Your task to perform on an android device: Show me productivity apps on the Play Store Image 0: 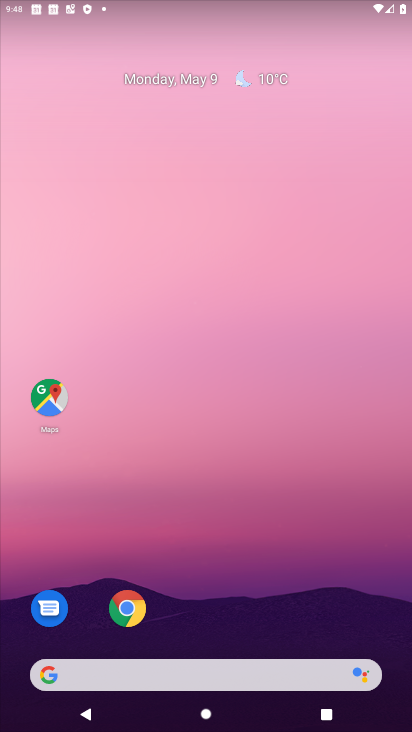
Step 0: drag from (317, 545) to (339, 57)
Your task to perform on an android device: Show me productivity apps on the Play Store Image 1: 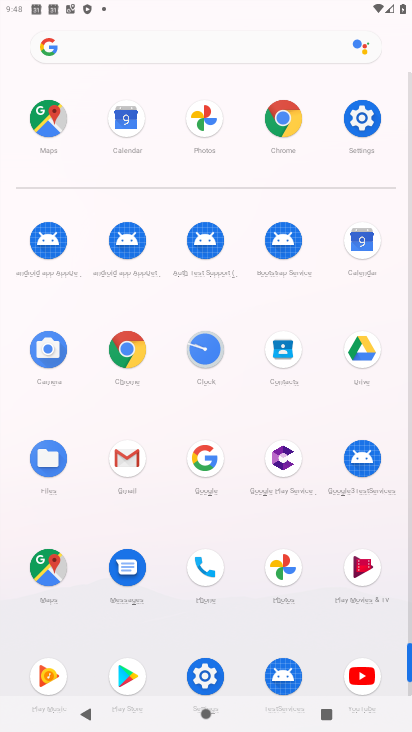
Step 1: click (128, 666)
Your task to perform on an android device: Show me productivity apps on the Play Store Image 2: 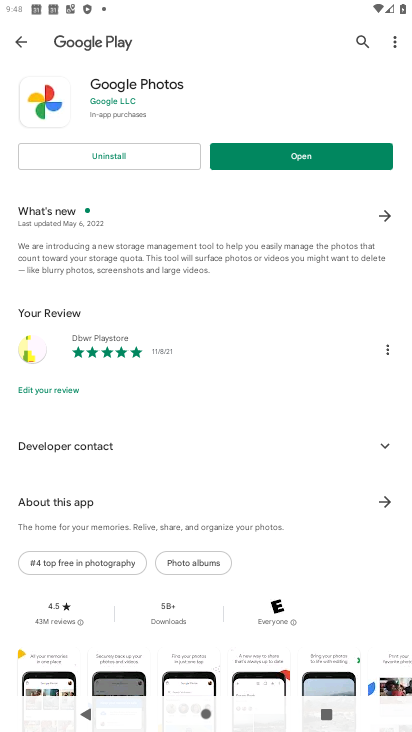
Step 2: click (20, 40)
Your task to perform on an android device: Show me productivity apps on the Play Store Image 3: 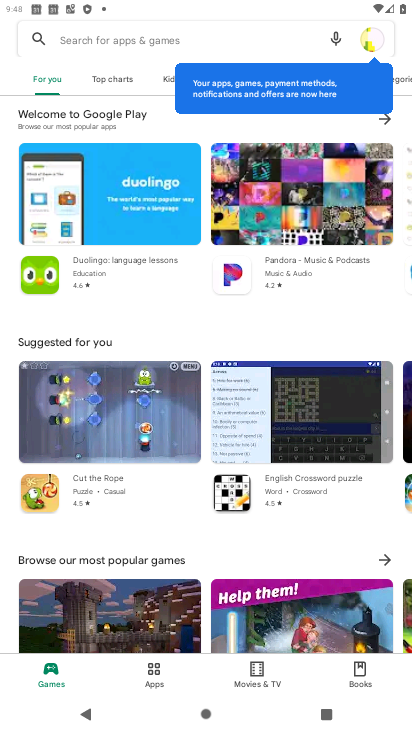
Step 3: click (208, 41)
Your task to perform on an android device: Show me productivity apps on the Play Store Image 4: 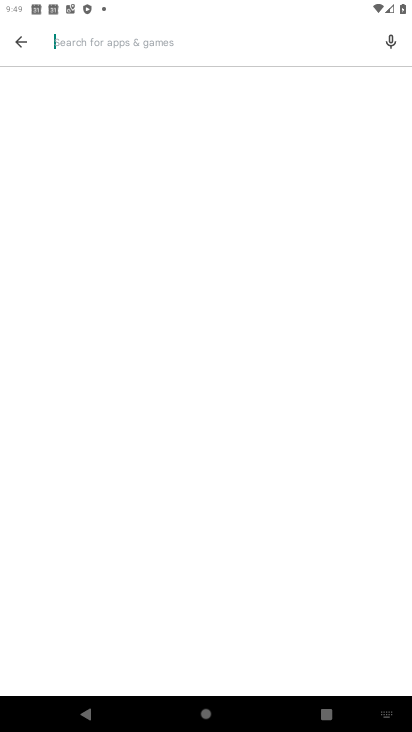
Step 4: type "productivity apps"
Your task to perform on an android device: Show me productivity apps on the Play Store Image 5: 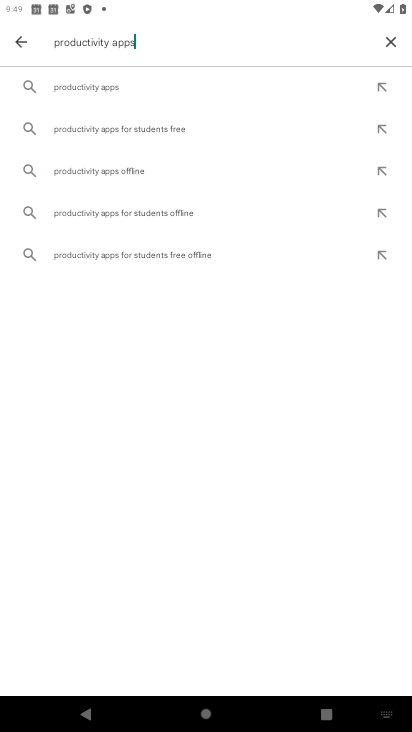
Step 5: click (72, 88)
Your task to perform on an android device: Show me productivity apps on the Play Store Image 6: 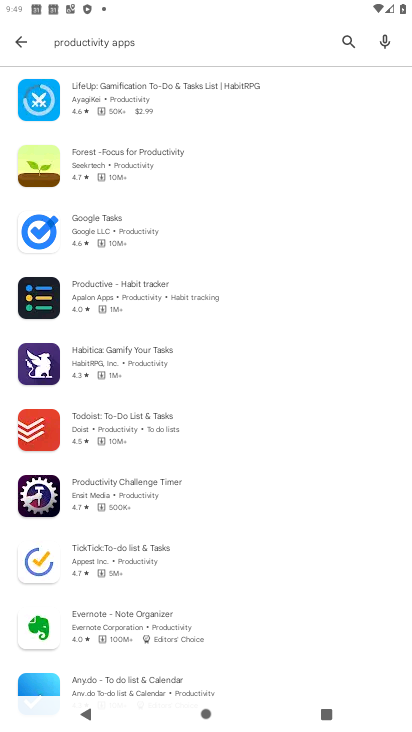
Step 6: task complete